Your task to perform on an android device: Open Amazon Image 0: 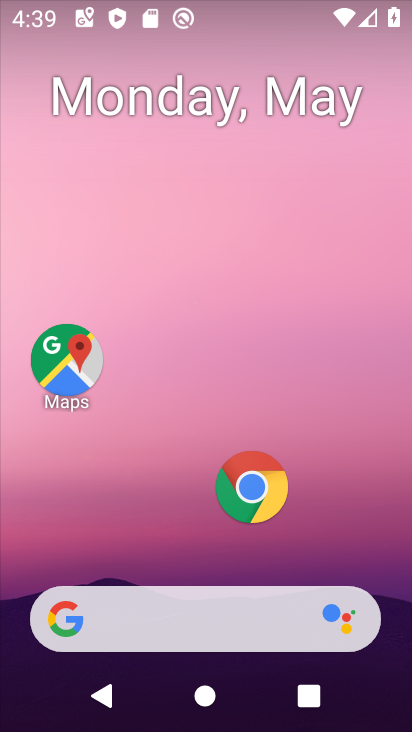
Step 0: click (252, 490)
Your task to perform on an android device: Open Amazon Image 1: 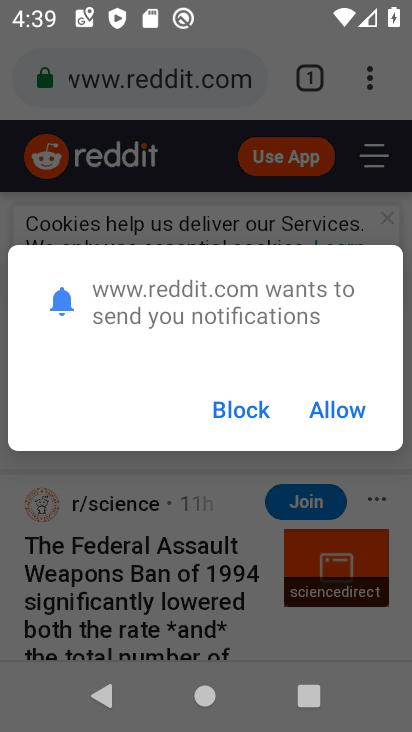
Step 1: click (327, 414)
Your task to perform on an android device: Open Amazon Image 2: 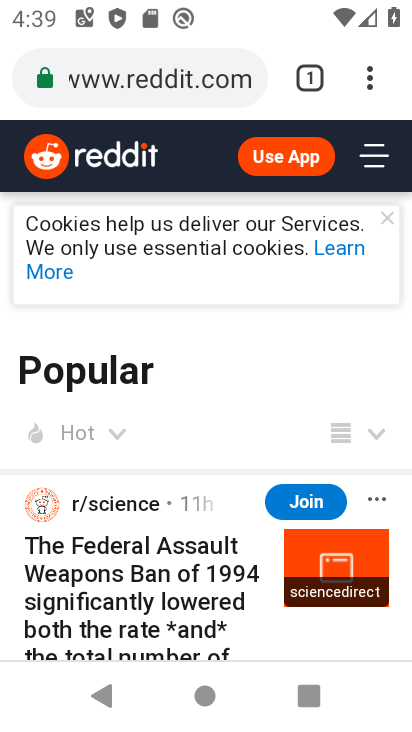
Step 2: click (321, 88)
Your task to perform on an android device: Open Amazon Image 3: 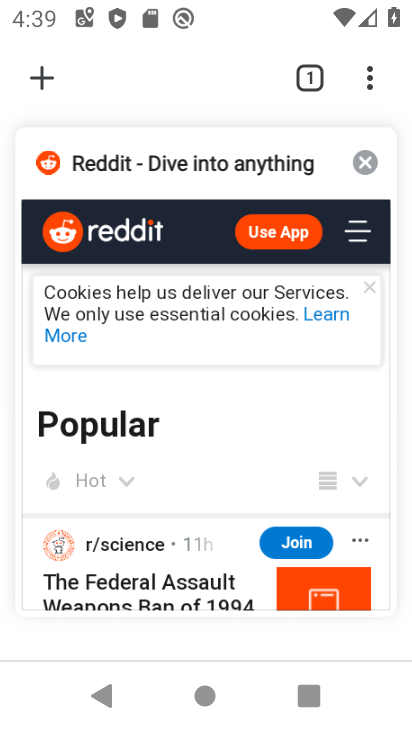
Step 3: click (362, 163)
Your task to perform on an android device: Open Amazon Image 4: 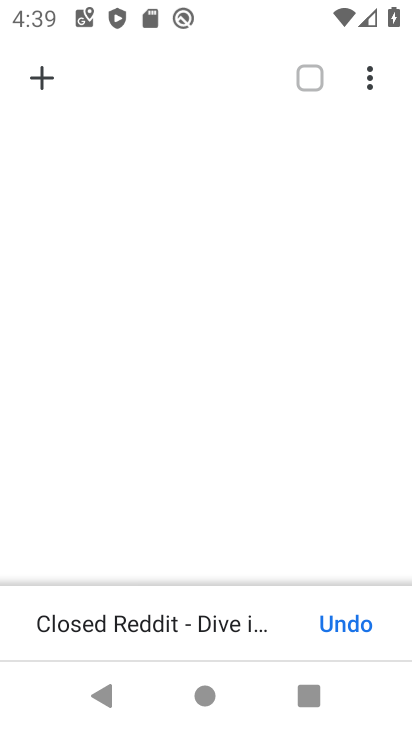
Step 4: click (36, 75)
Your task to perform on an android device: Open Amazon Image 5: 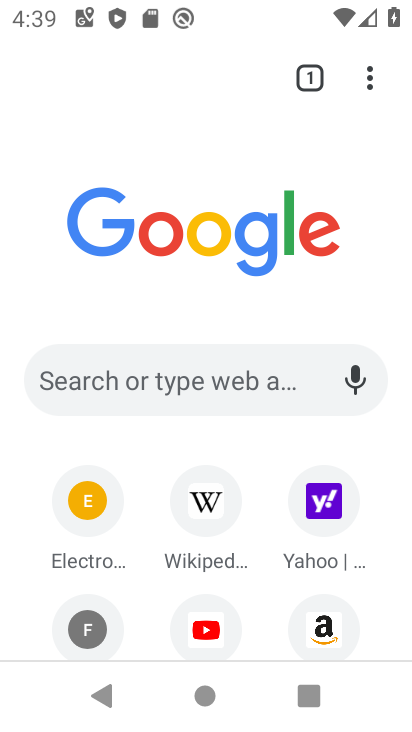
Step 5: click (330, 625)
Your task to perform on an android device: Open Amazon Image 6: 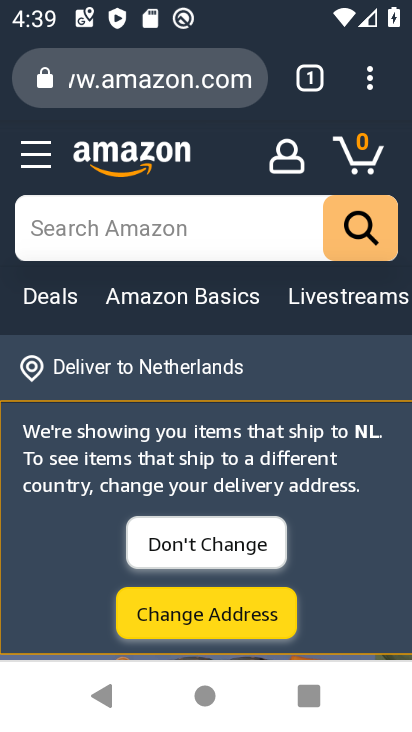
Step 6: task complete